Your task to perform on an android device: Open the phone app and click the voicemail tab. Image 0: 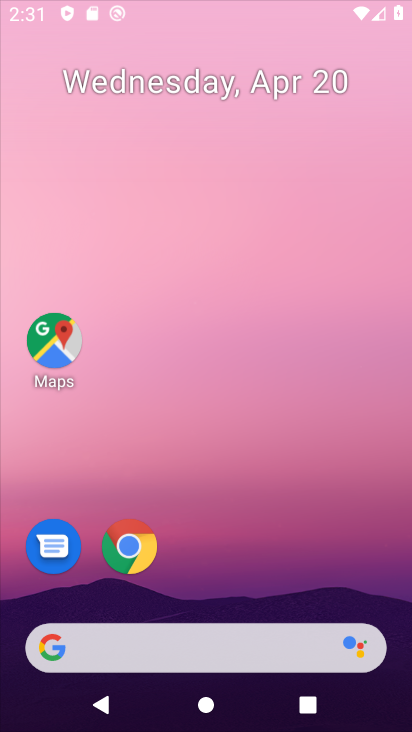
Step 0: click (145, 550)
Your task to perform on an android device: Open the phone app and click the voicemail tab. Image 1: 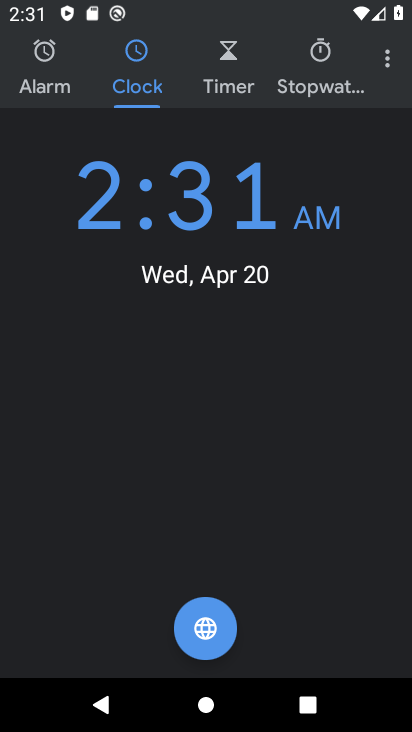
Step 1: press back button
Your task to perform on an android device: Open the phone app and click the voicemail tab. Image 2: 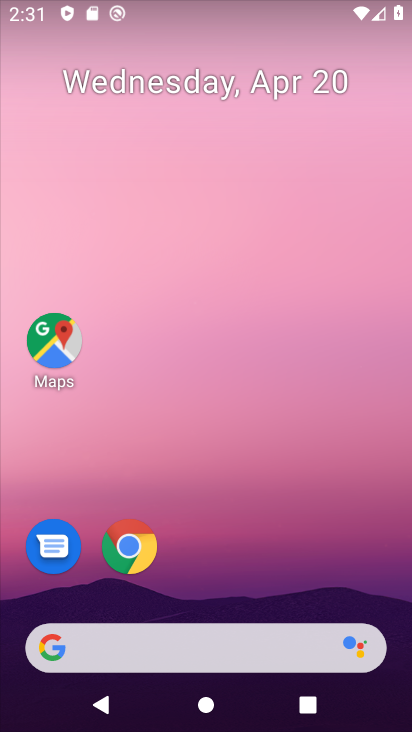
Step 2: drag from (251, 618) to (354, 150)
Your task to perform on an android device: Open the phone app and click the voicemail tab. Image 3: 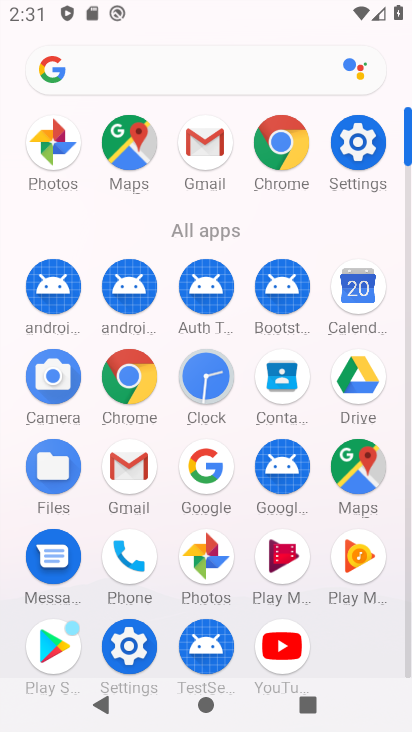
Step 3: click (123, 583)
Your task to perform on an android device: Open the phone app and click the voicemail tab. Image 4: 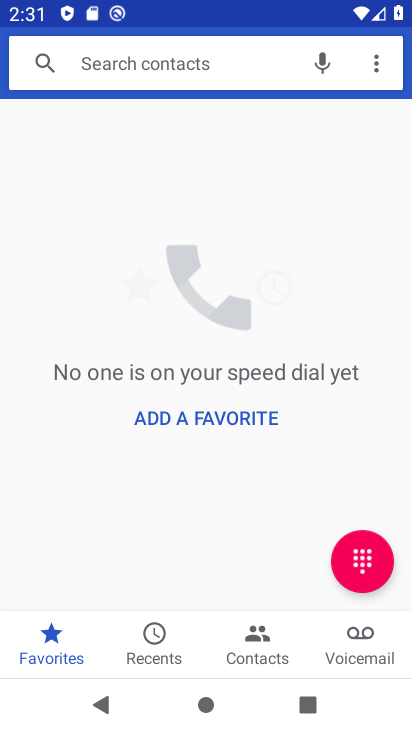
Step 4: click (348, 657)
Your task to perform on an android device: Open the phone app and click the voicemail tab. Image 5: 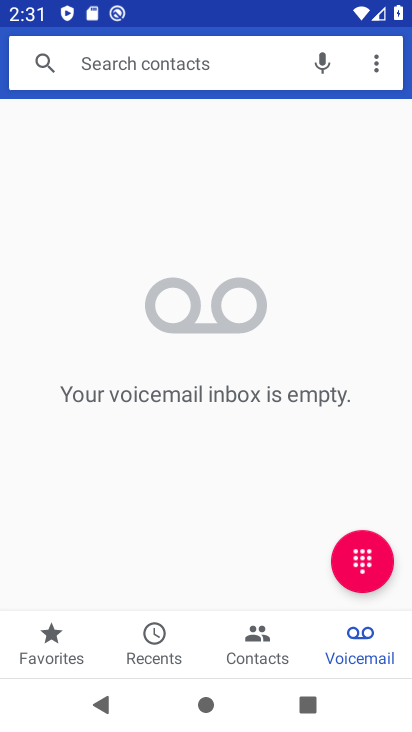
Step 5: task complete